Your task to perform on an android device: See recent photos Image 0: 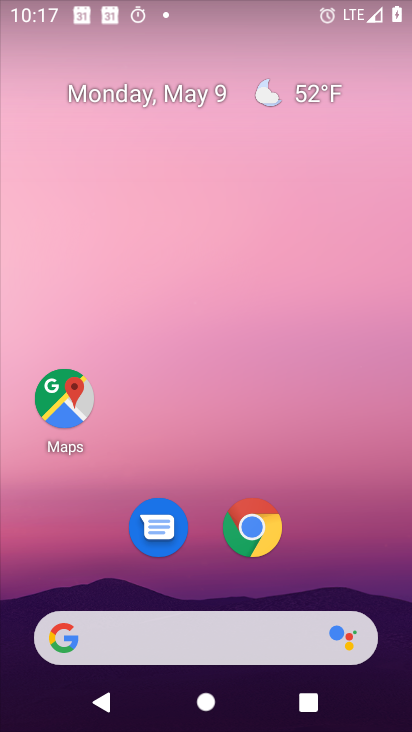
Step 0: drag from (204, 562) to (217, 52)
Your task to perform on an android device: See recent photos Image 1: 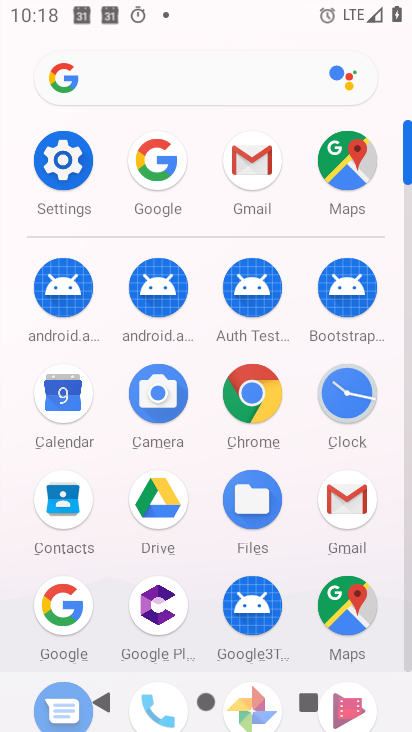
Step 1: drag from (205, 624) to (235, 212)
Your task to perform on an android device: See recent photos Image 2: 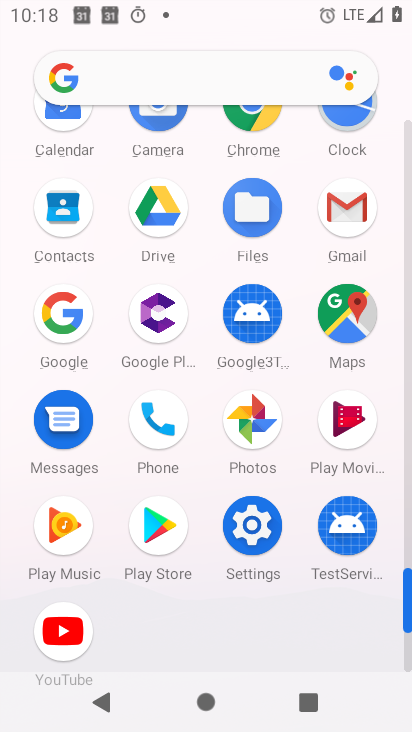
Step 2: click (248, 422)
Your task to perform on an android device: See recent photos Image 3: 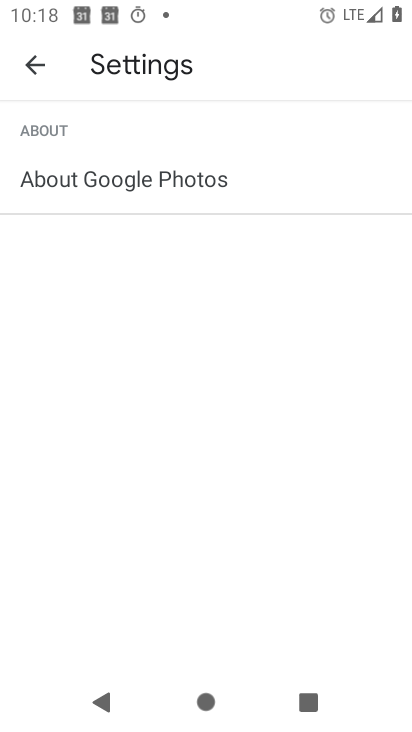
Step 3: press back button
Your task to perform on an android device: See recent photos Image 4: 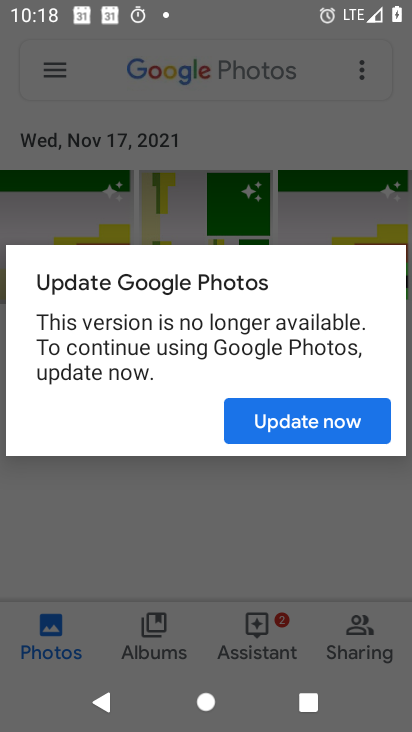
Step 4: click (295, 414)
Your task to perform on an android device: See recent photos Image 5: 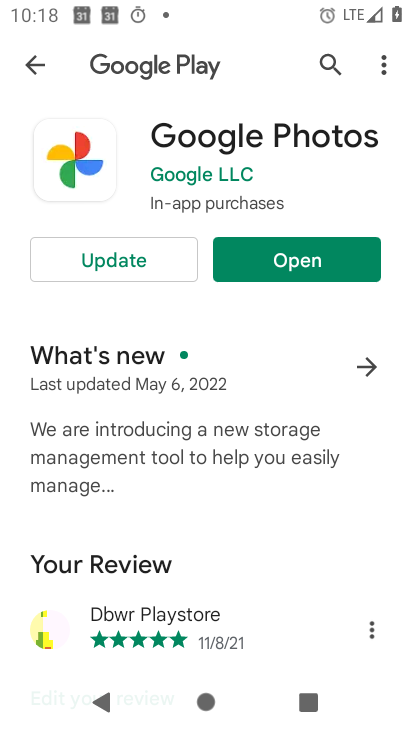
Step 5: click (308, 250)
Your task to perform on an android device: See recent photos Image 6: 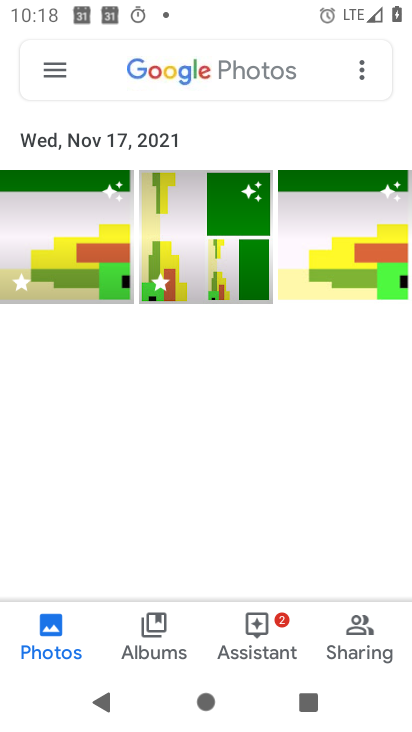
Step 6: task complete